Your task to perform on an android device: turn on location history Image 0: 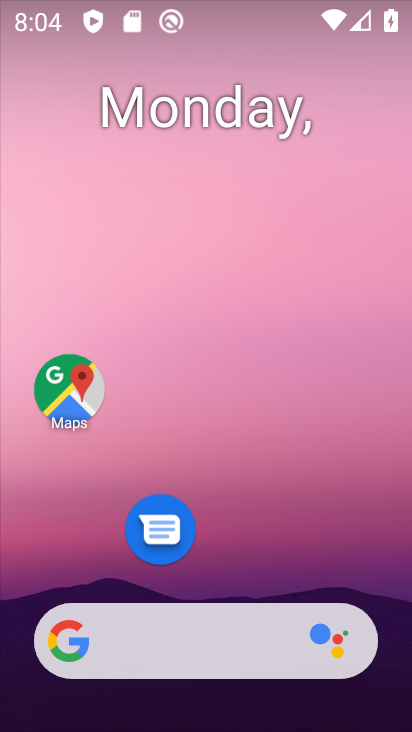
Step 0: drag from (207, 578) to (227, 169)
Your task to perform on an android device: turn on location history Image 1: 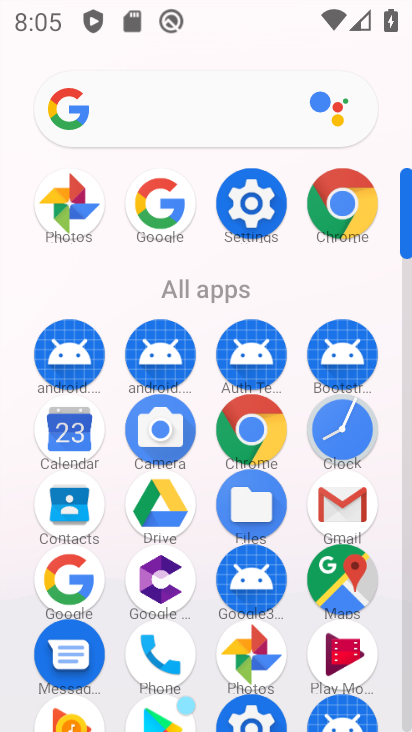
Step 1: click (227, 203)
Your task to perform on an android device: turn on location history Image 2: 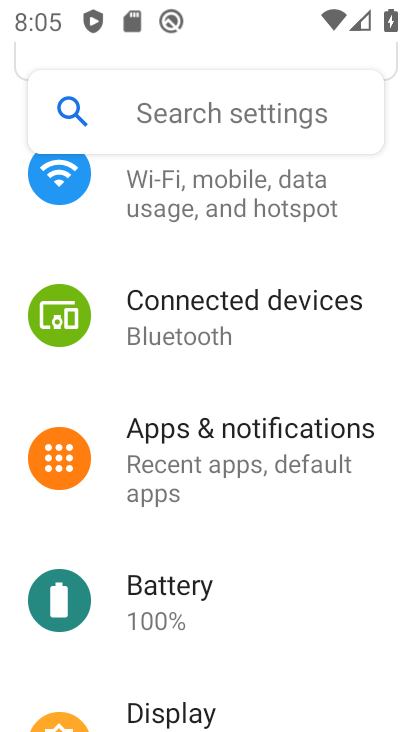
Step 2: drag from (240, 610) to (289, 251)
Your task to perform on an android device: turn on location history Image 3: 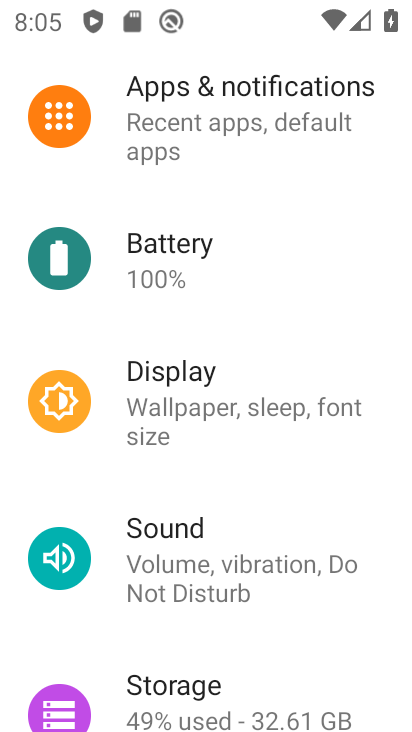
Step 3: drag from (280, 651) to (284, 239)
Your task to perform on an android device: turn on location history Image 4: 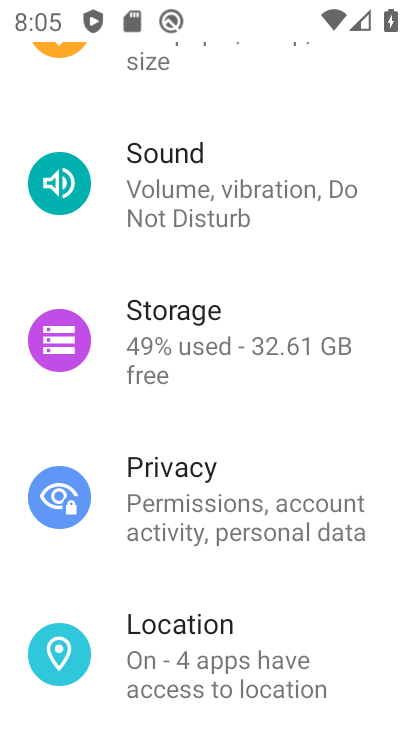
Step 4: click (218, 674)
Your task to perform on an android device: turn on location history Image 5: 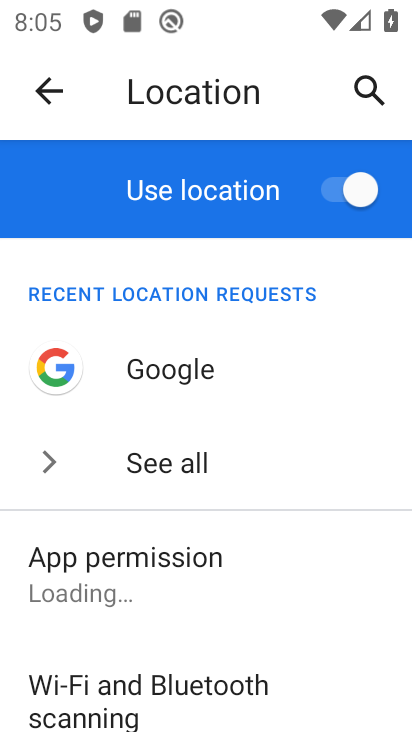
Step 5: drag from (243, 594) to (287, 175)
Your task to perform on an android device: turn on location history Image 6: 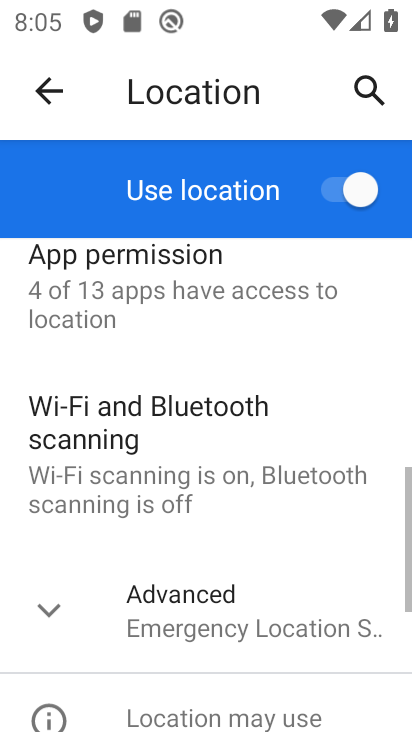
Step 6: click (268, 586)
Your task to perform on an android device: turn on location history Image 7: 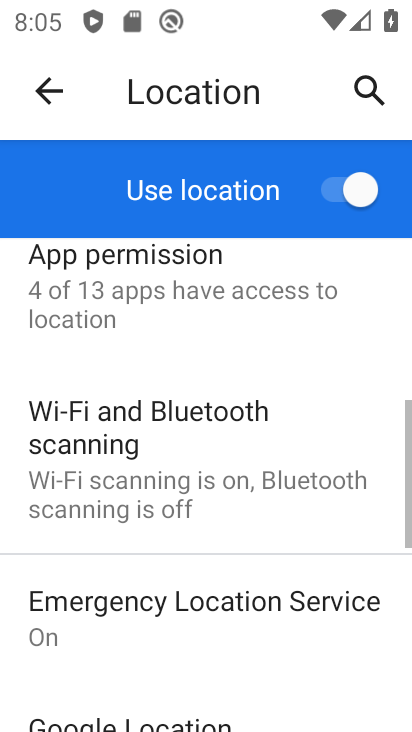
Step 7: drag from (268, 586) to (305, 247)
Your task to perform on an android device: turn on location history Image 8: 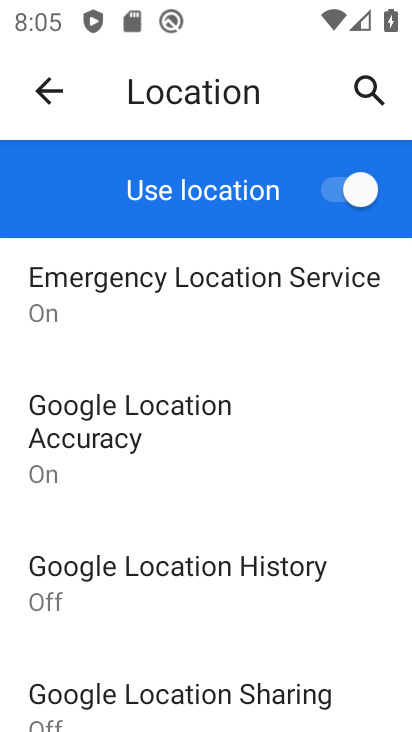
Step 8: click (210, 596)
Your task to perform on an android device: turn on location history Image 9: 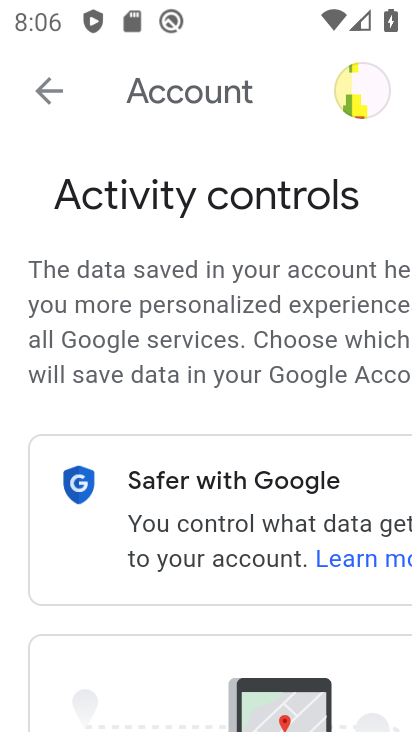
Step 9: task complete